Your task to perform on an android device: Clear all items from cart on walmart.com. Add usb-a to usb-b to the cart on walmart.com, then select checkout. Image 0: 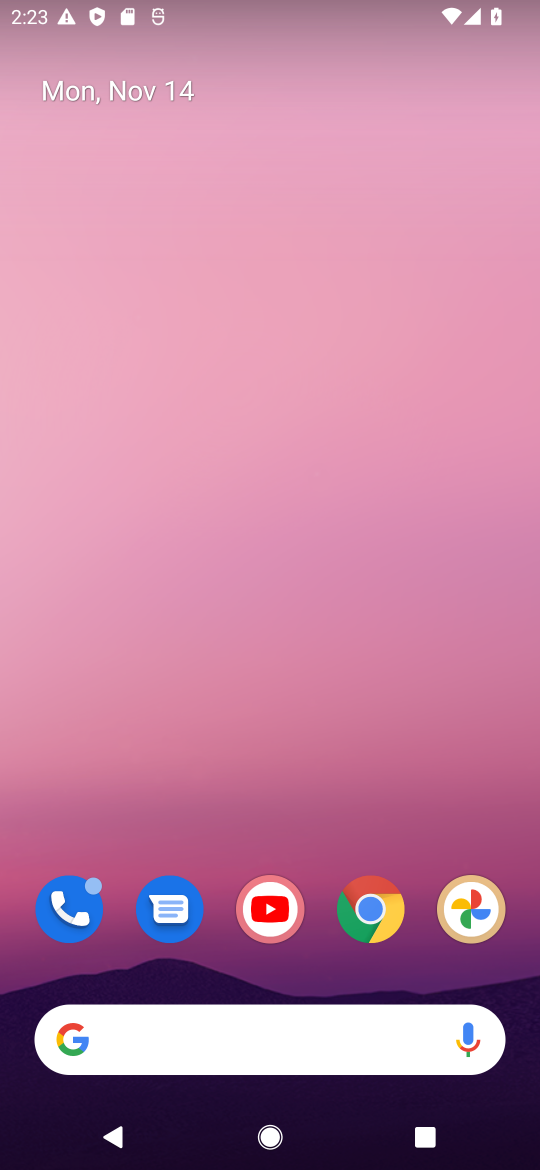
Step 0: drag from (318, 979) to (338, 151)
Your task to perform on an android device: Clear all items from cart on walmart.com. Add usb-a to usb-b to the cart on walmart.com, then select checkout. Image 1: 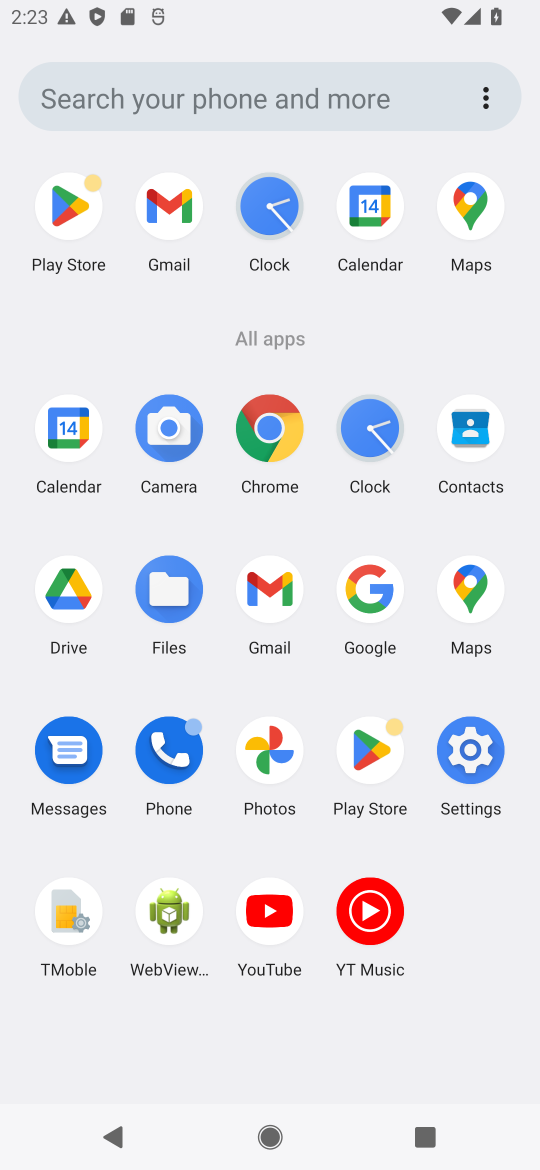
Step 1: click (276, 429)
Your task to perform on an android device: Clear all items from cart on walmart.com. Add usb-a to usb-b to the cart on walmart.com, then select checkout. Image 2: 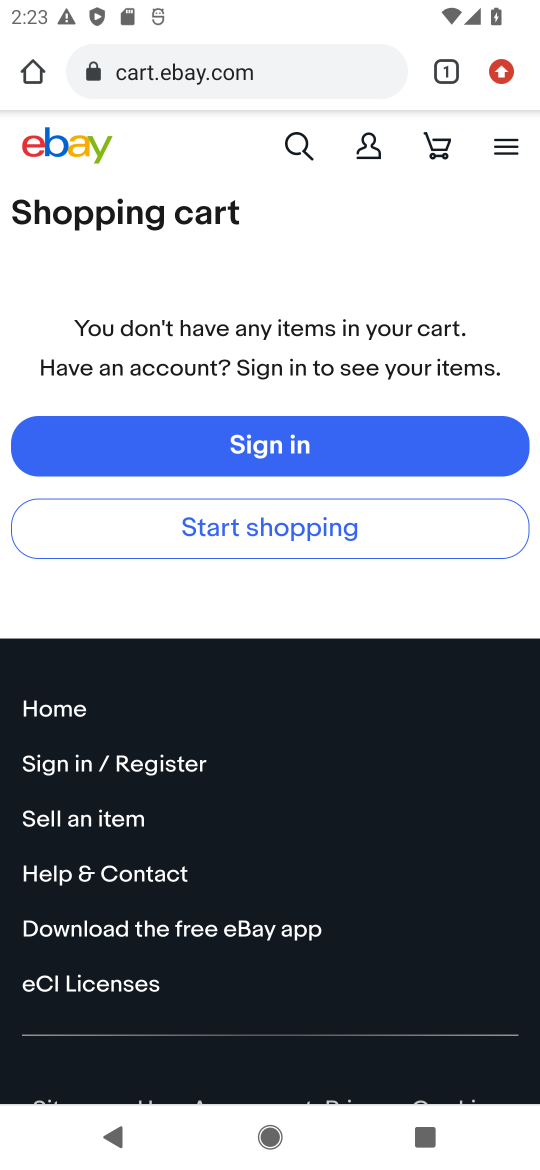
Step 2: click (259, 64)
Your task to perform on an android device: Clear all items from cart on walmart.com. Add usb-a to usb-b to the cart on walmart.com, then select checkout. Image 3: 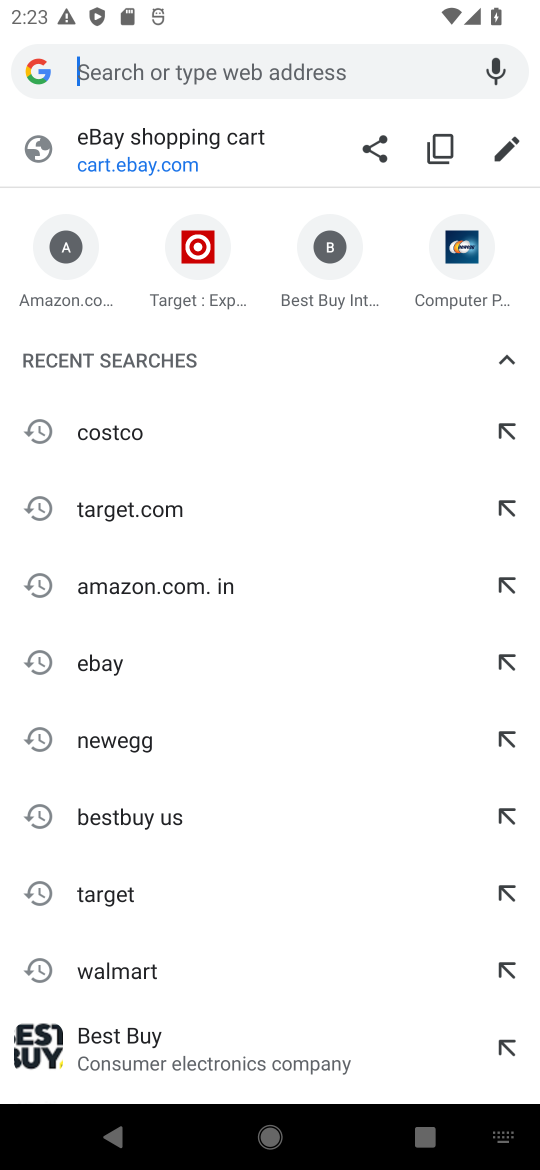
Step 3: type "walmart.com"
Your task to perform on an android device: Clear all items from cart on walmart.com. Add usb-a to usb-b to the cart on walmart.com, then select checkout. Image 4: 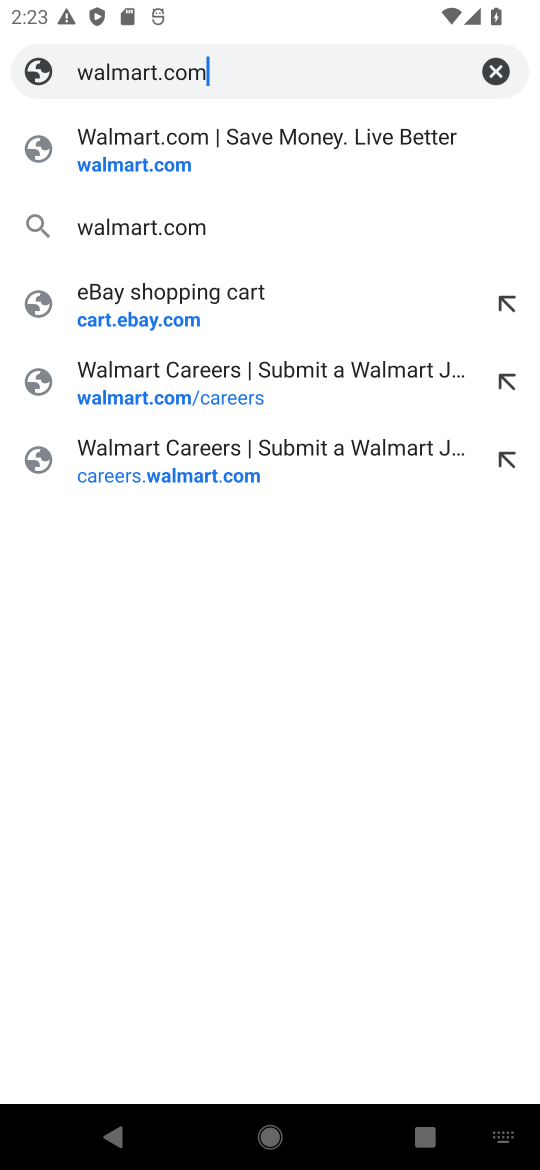
Step 4: press enter
Your task to perform on an android device: Clear all items from cart on walmart.com. Add usb-a to usb-b to the cart on walmart.com, then select checkout. Image 5: 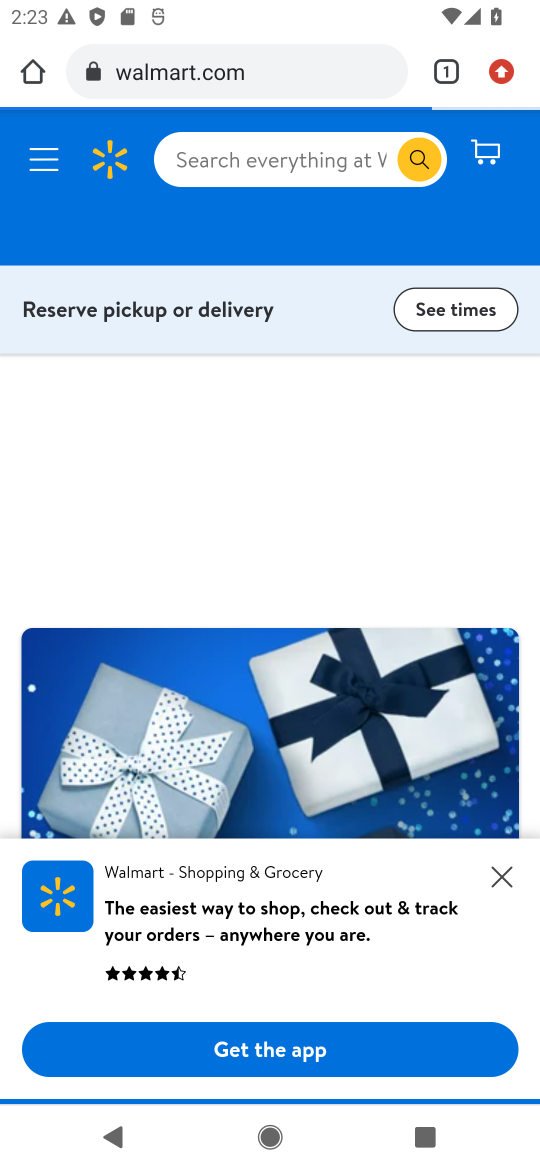
Step 5: click (493, 162)
Your task to perform on an android device: Clear all items from cart on walmart.com. Add usb-a to usb-b to the cart on walmart.com, then select checkout. Image 6: 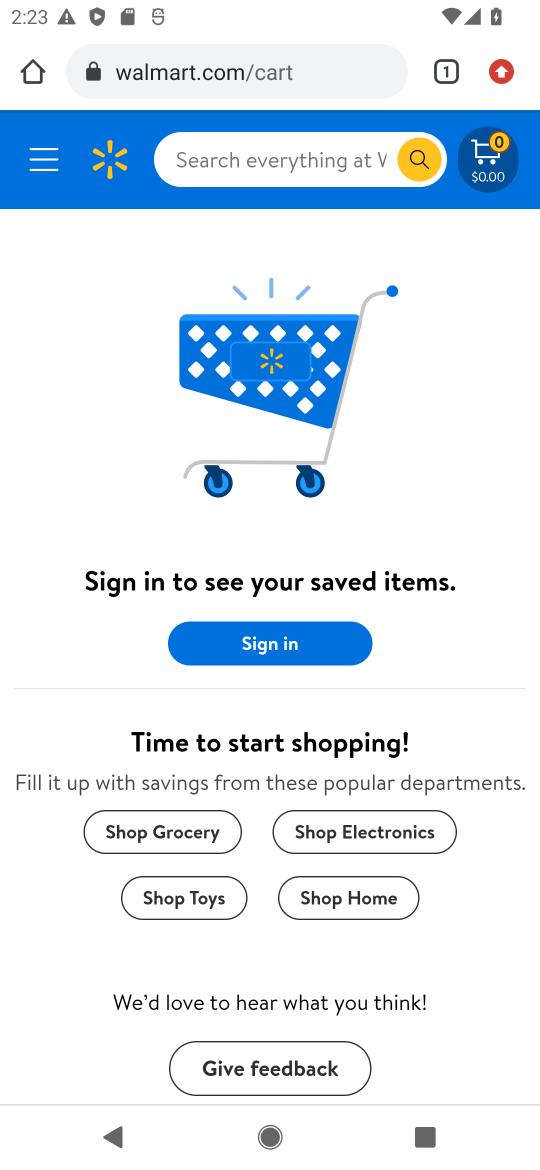
Step 6: click (218, 160)
Your task to perform on an android device: Clear all items from cart on walmart.com. Add usb-a to usb-b to the cart on walmart.com, then select checkout. Image 7: 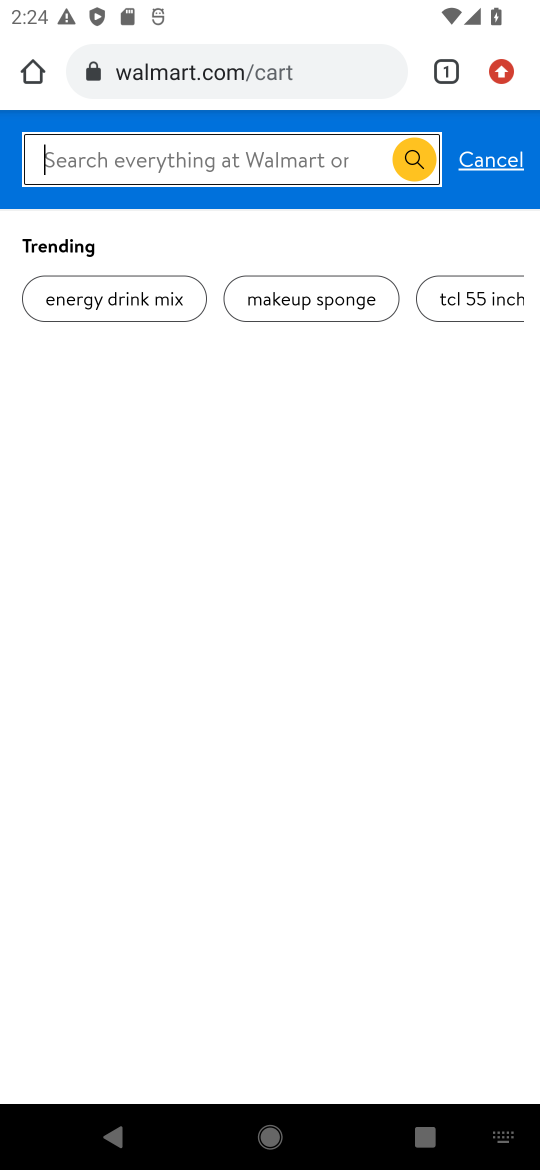
Step 7: type "usb-a to usb-b"
Your task to perform on an android device: Clear all items from cart on walmart.com. Add usb-a to usb-b to the cart on walmart.com, then select checkout. Image 8: 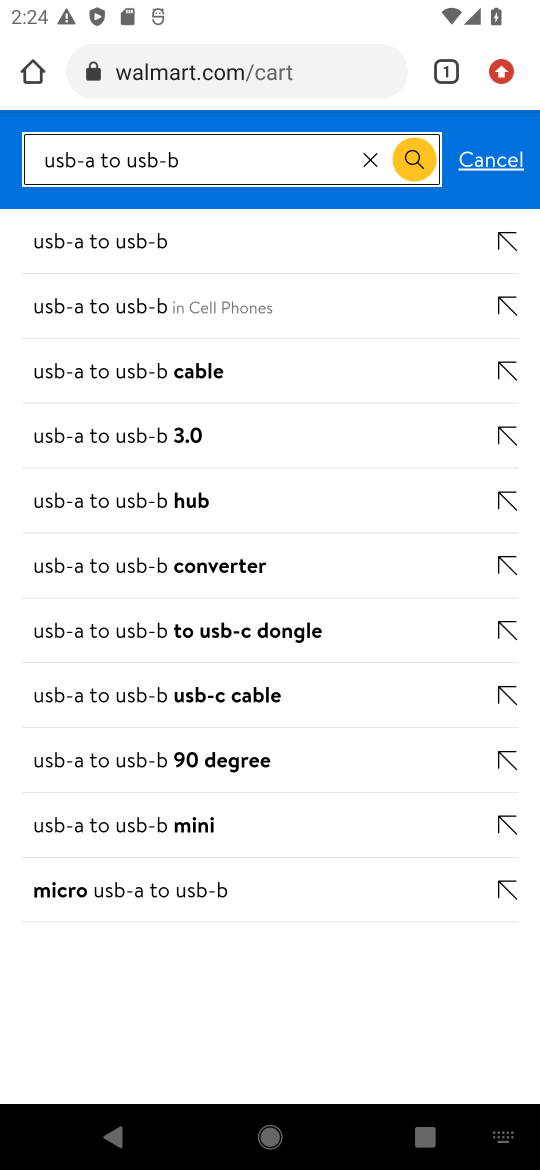
Step 8: press enter
Your task to perform on an android device: Clear all items from cart on walmart.com. Add usb-a to usb-b to the cart on walmart.com, then select checkout. Image 9: 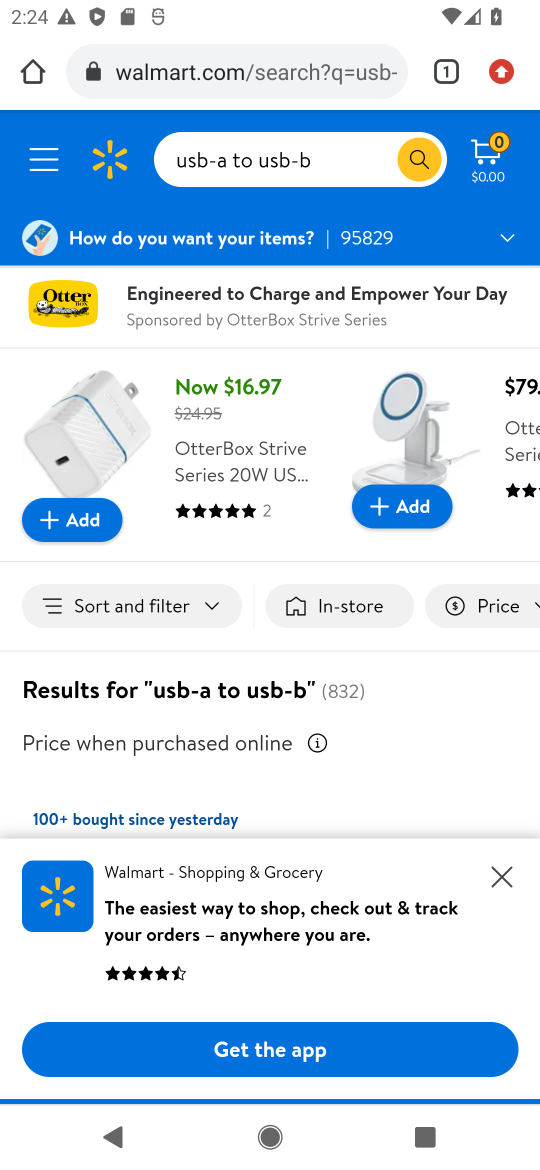
Step 9: drag from (179, 748) to (261, 93)
Your task to perform on an android device: Clear all items from cart on walmart.com. Add usb-a to usb-b to the cart on walmart.com, then select checkout. Image 10: 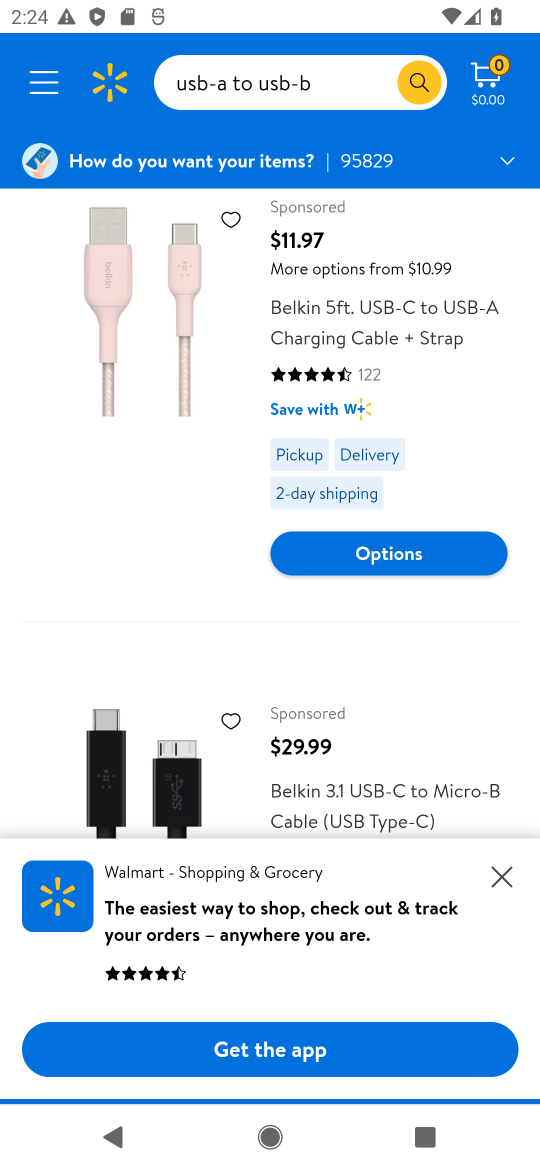
Step 10: drag from (250, 713) to (369, 68)
Your task to perform on an android device: Clear all items from cart on walmart.com. Add usb-a to usb-b to the cart on walmart.com, then select checkout. Image 11: 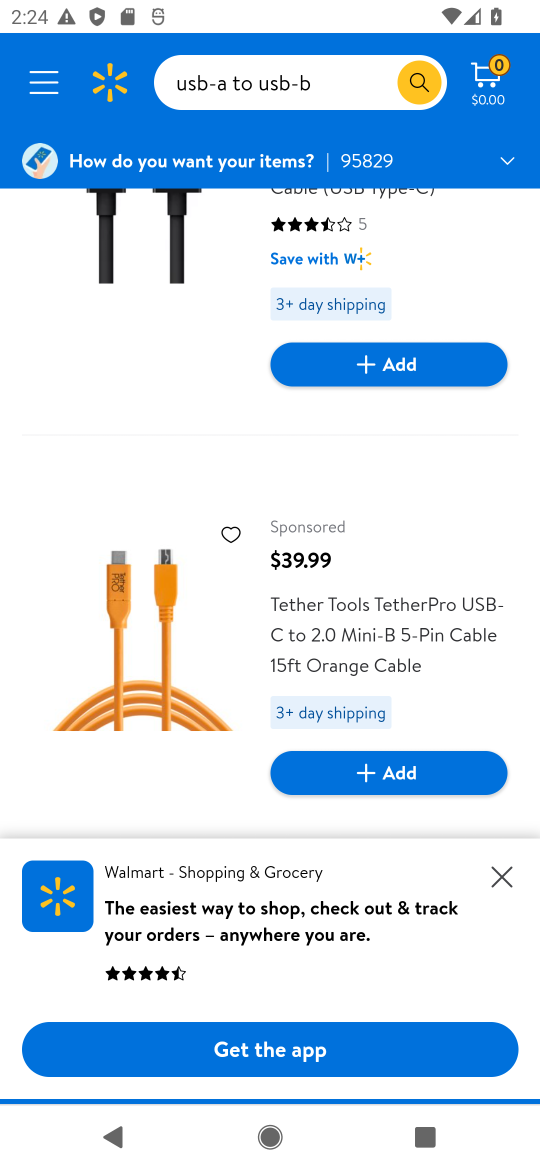
Step 11: drag from (263, 744) to (394, 183)
Your task to perform on an android device: Clear all items from cart on walmart.com. Add usb-a to usb-b to the cart on walmart.com, then select checkout. Image 12: 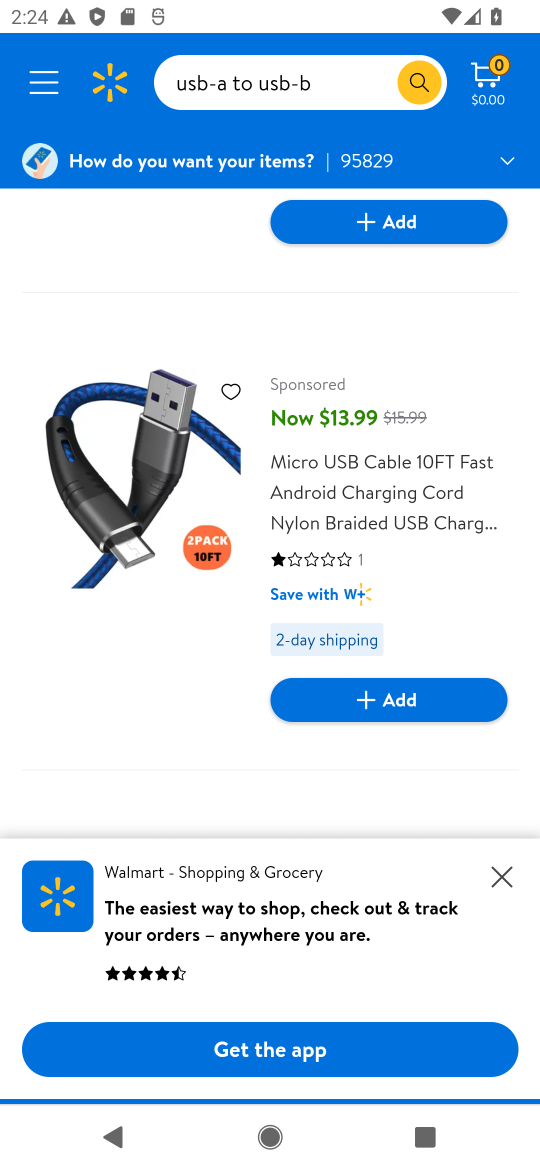
Step 12: drag from (309, 675) to (395, 114)
Your task to perform on an android device: Clear all items from cart on walmart.com. Add usb-a to usb-b to the cart on walmart.com, then select checkout. Image 13: 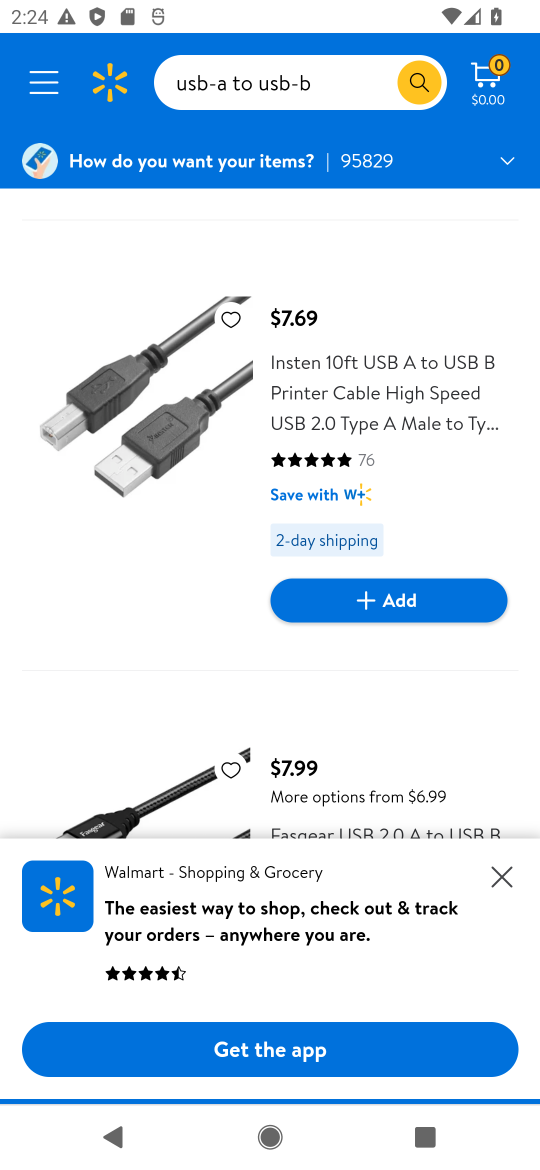
Step 13: click (405, 608)
Your task to perform on an android device: Clear all items from cart on walmart.com. Add usb-a to usb-b to the cart on walmart.com, then select checkout. Image 14: 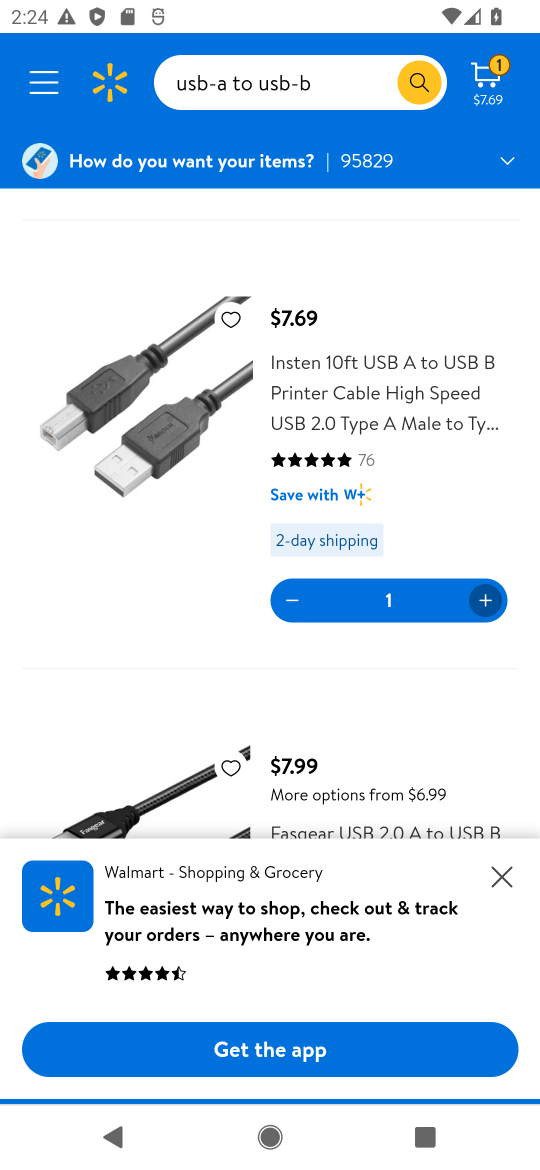
Step 14: click (489, 93)
Your task to perform on an android device: Clear all items from cart on walmart.com. Add usb-a to usb-b to the cart on walmart.com, then select checkout. Image 15: 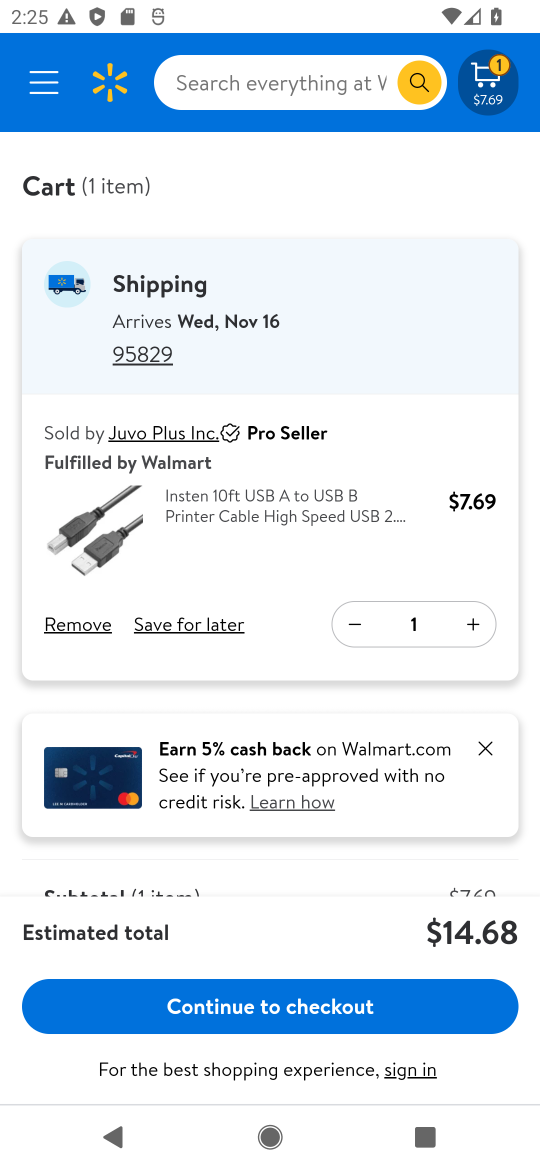
Step 15: click (238, 1018)
Your task to perform on an android device: Clear all items from cart on walmart.com. Add usb-a to usb-b to the cart on walmart.com, then select checkout. Image 16: 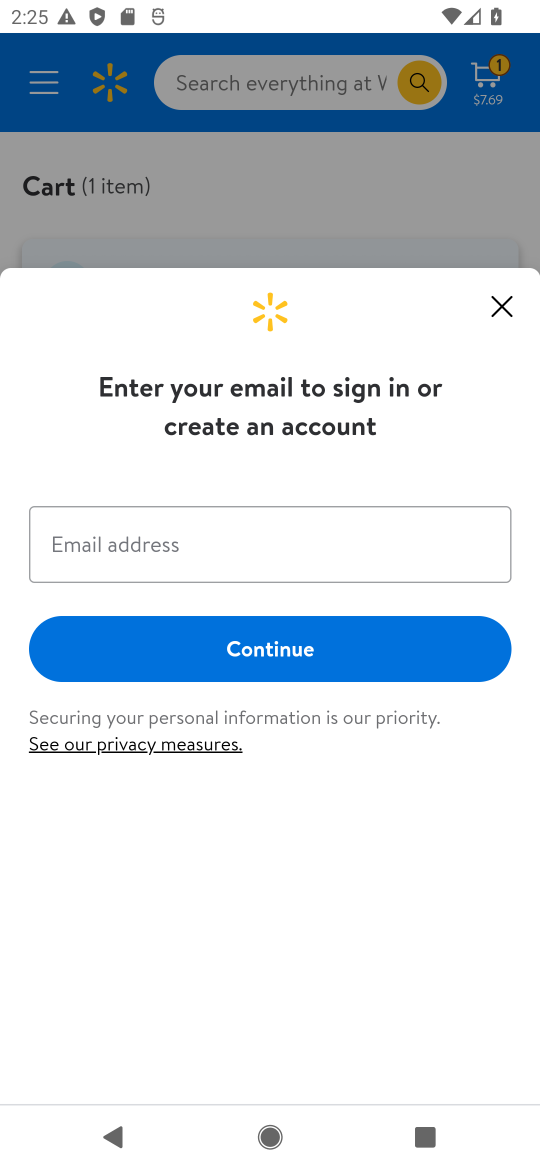
Step 16: task complete